Your task to perform on an android device: uninstall "Facebook Lite" Image 0: 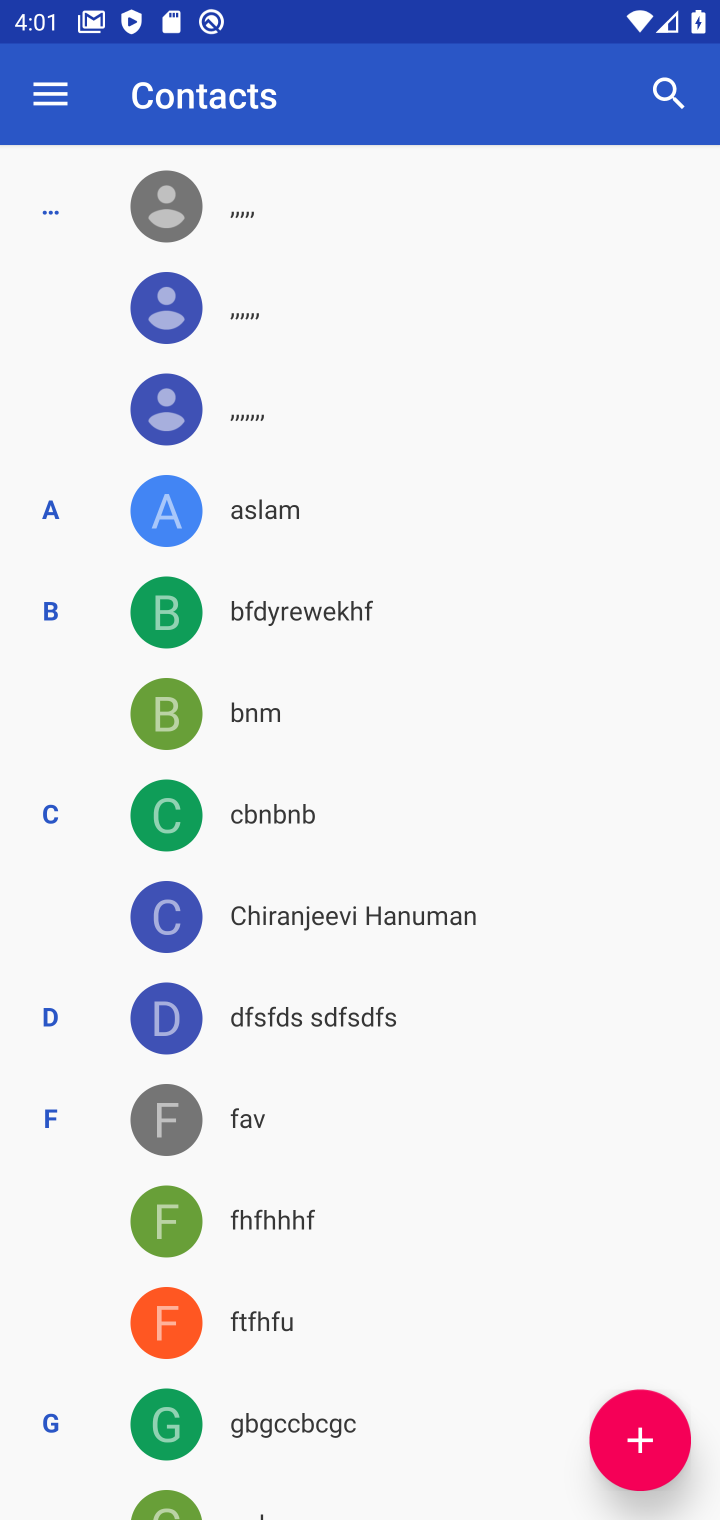
Step 0: press home button
Your task to perform on an android device: uninstall "Facebook Lite" Image 1: 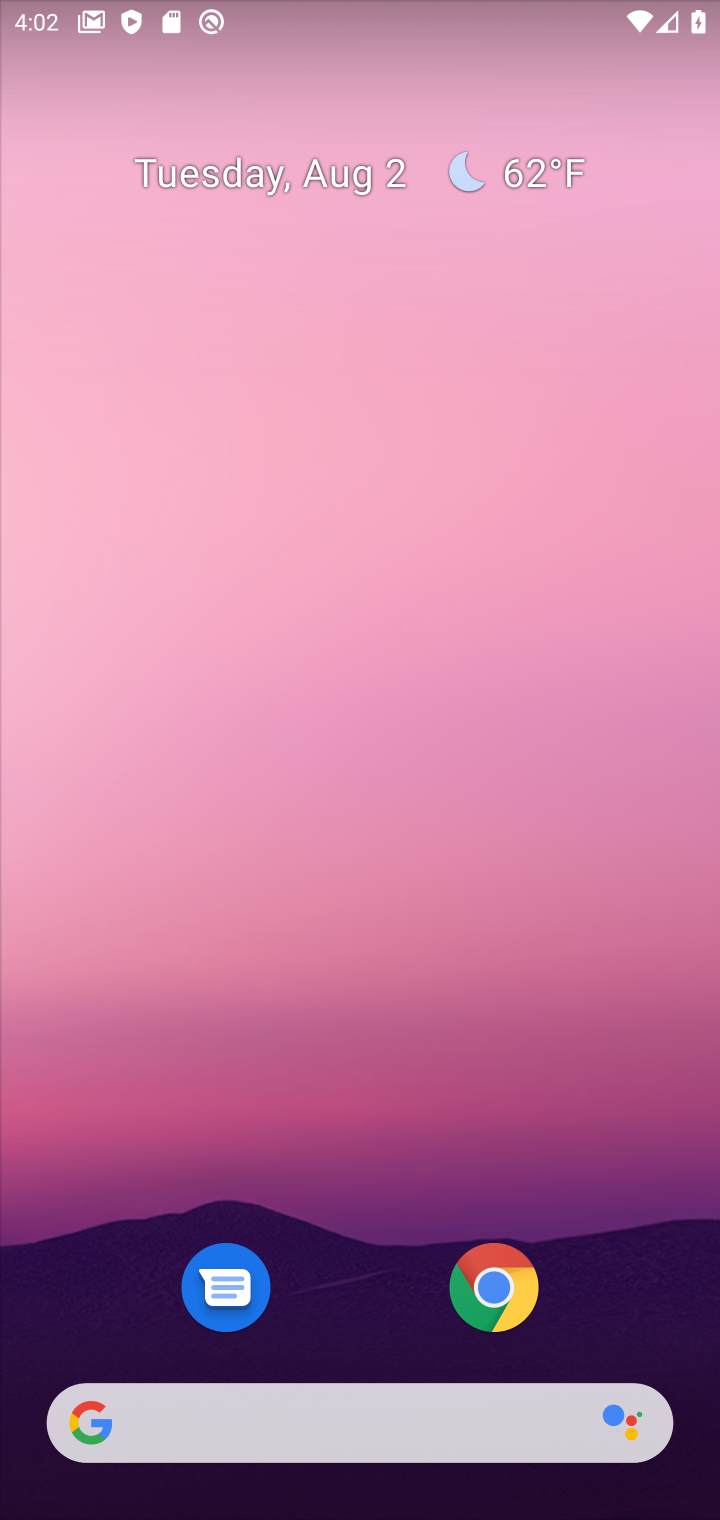
Step 1: drag from (417, 845) to (477, 78)
Your task to perform on an android device: uninstall "Facebook Lite" Image 2: 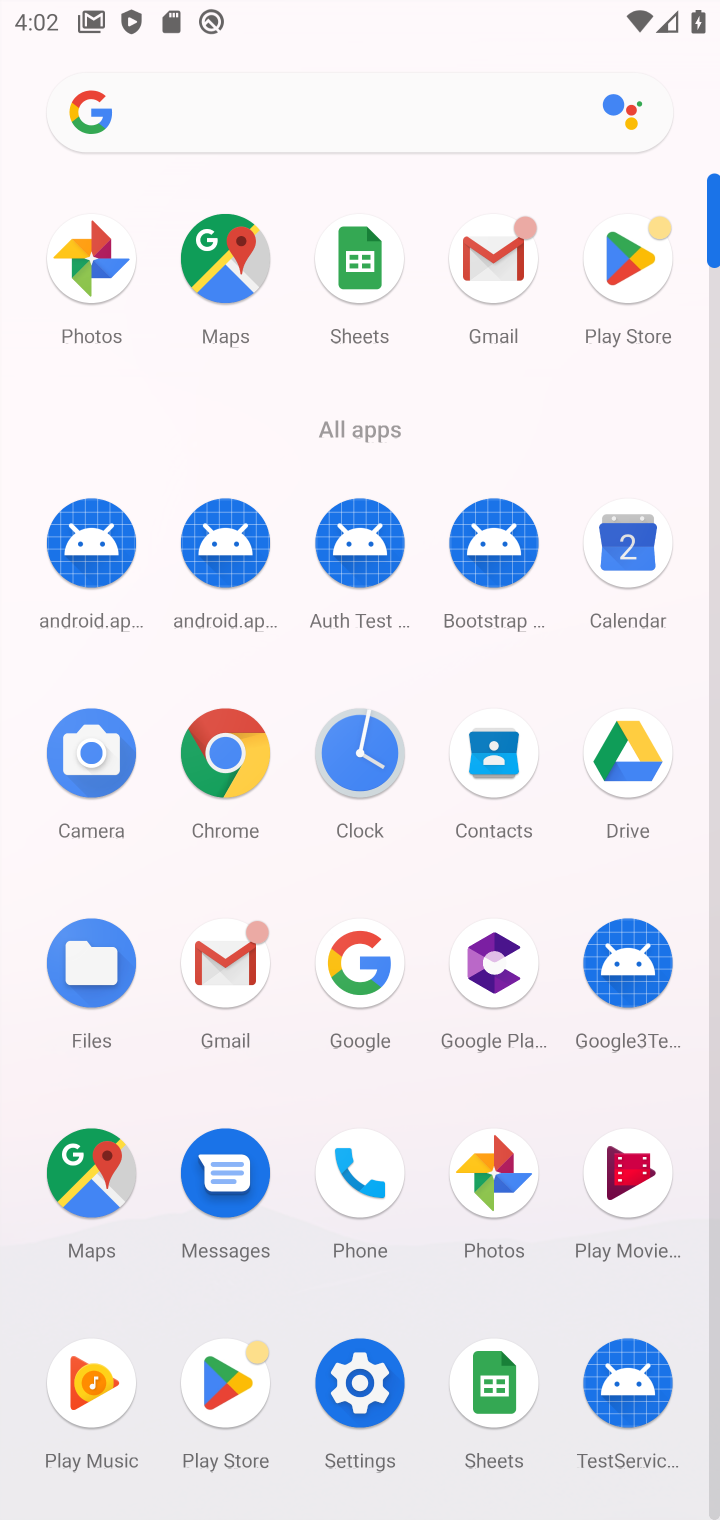
Step 2: click (662, 279)
Your task to perform on an android device: uninstall "Facebook Lite" Image 3: 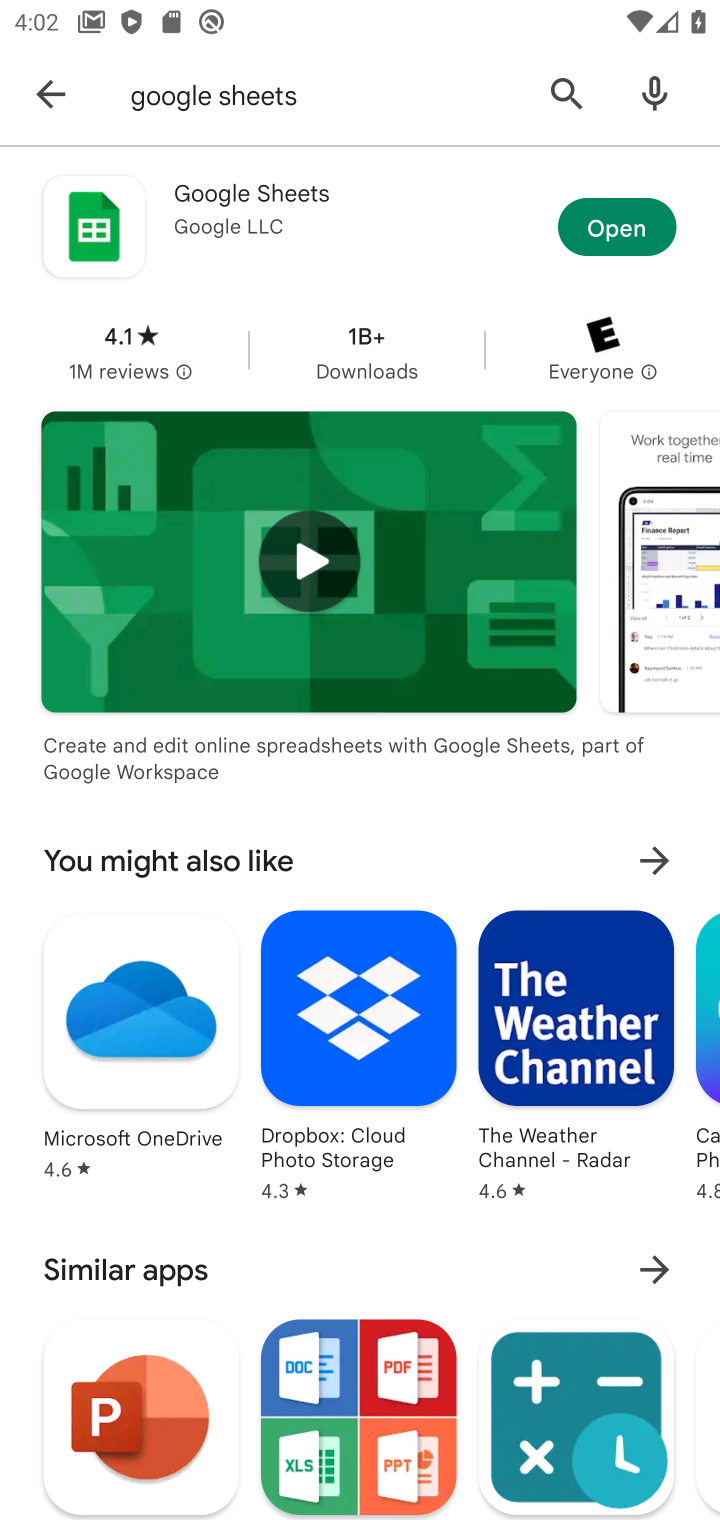
Step 3: click (580, 96)
Your task to perform on an android device: uninstall "Facebook Lite" Image 4: 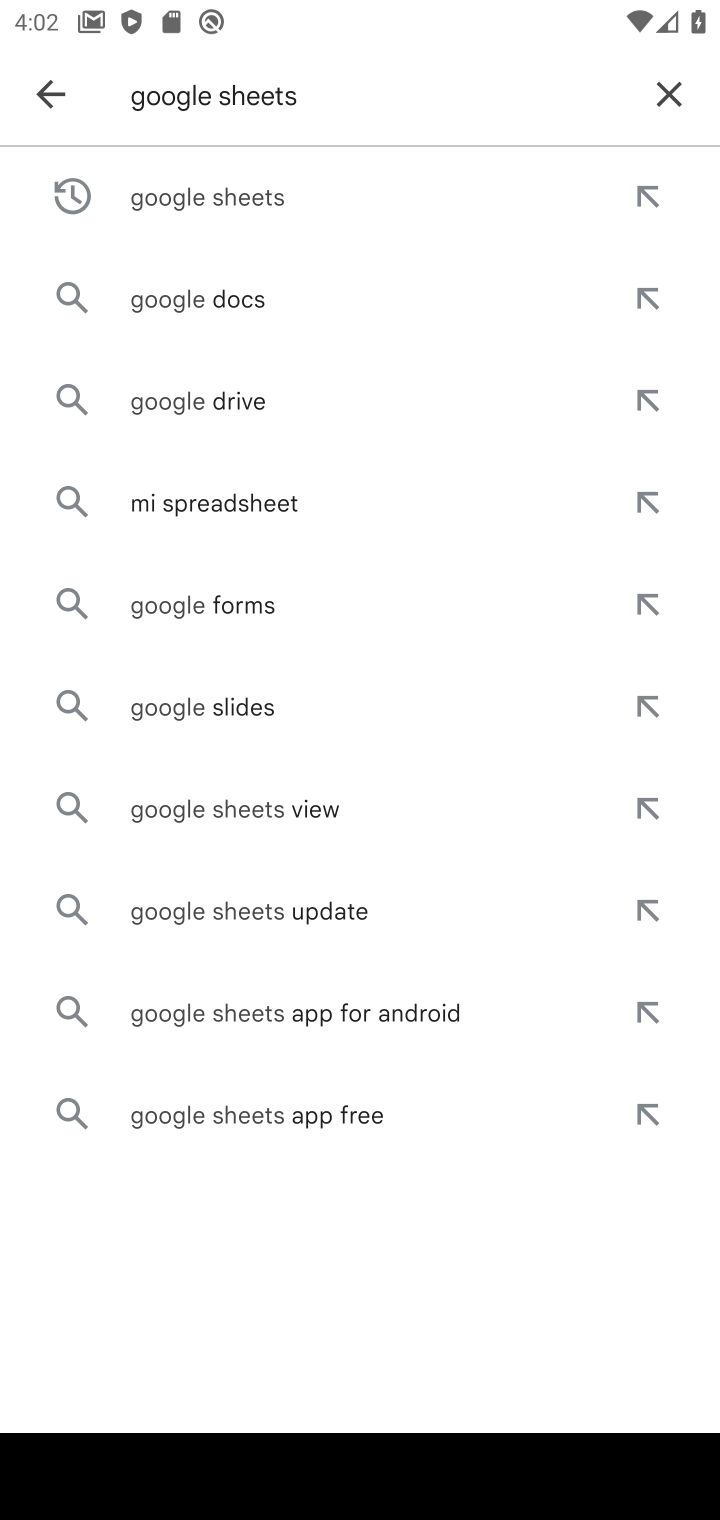
Step 4: click (660, 96)
Your task to perform on an android device: uninstall "Facebook Lite" Image 5: 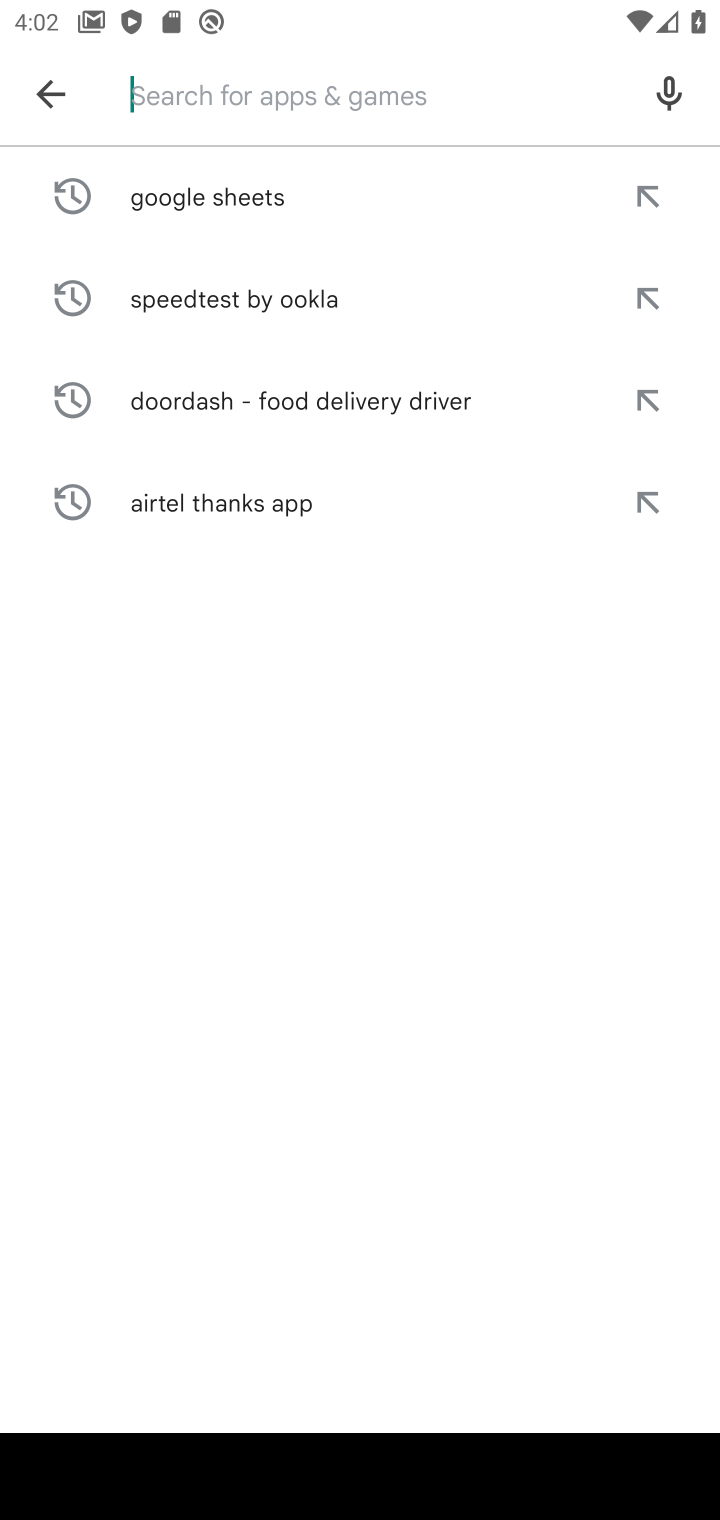
Step 5: type "Facebook Lite"
Your task to perform on an android device: uninstall "Facebook Lite" Image 6: 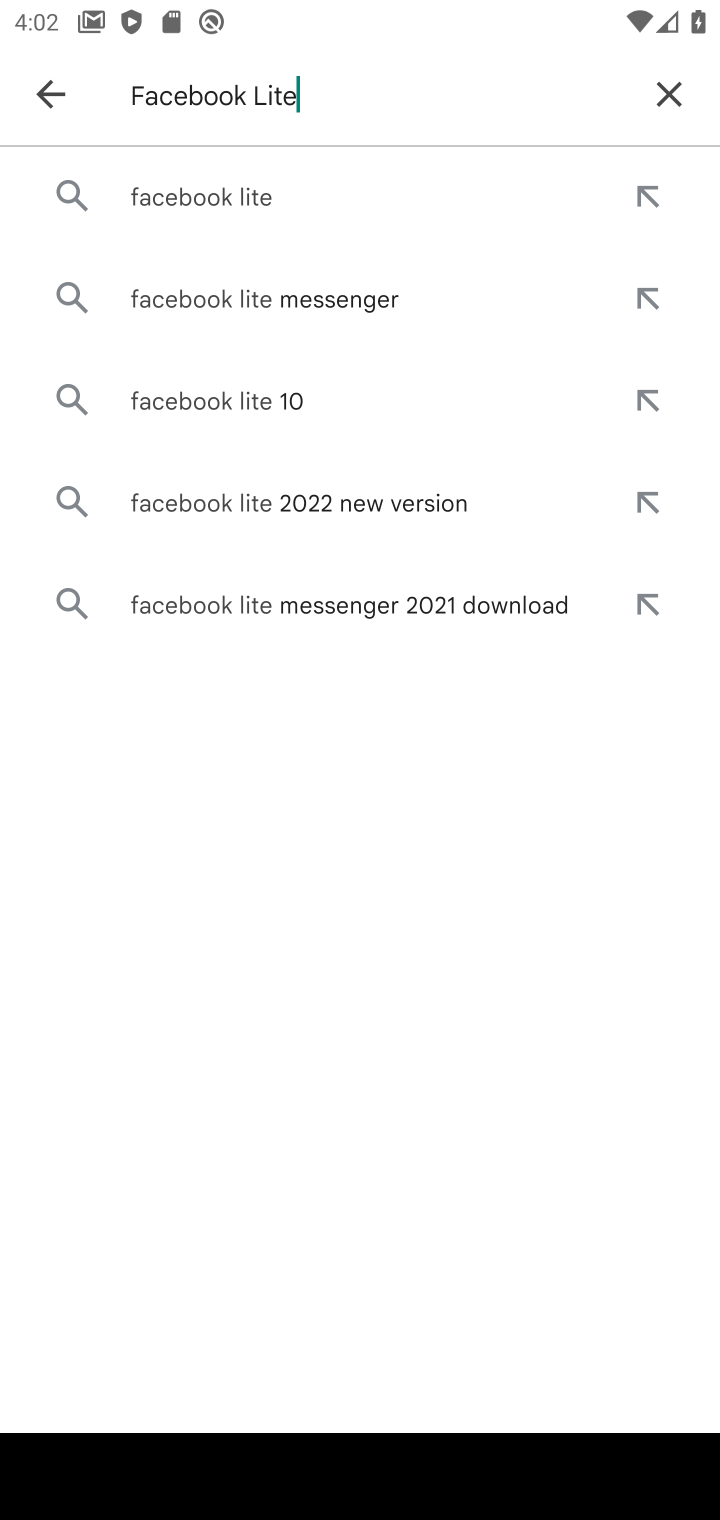
Step 6: click (278, 208)
Your task to perform on an android device: uninstall "Facebook Lite" Image 7: 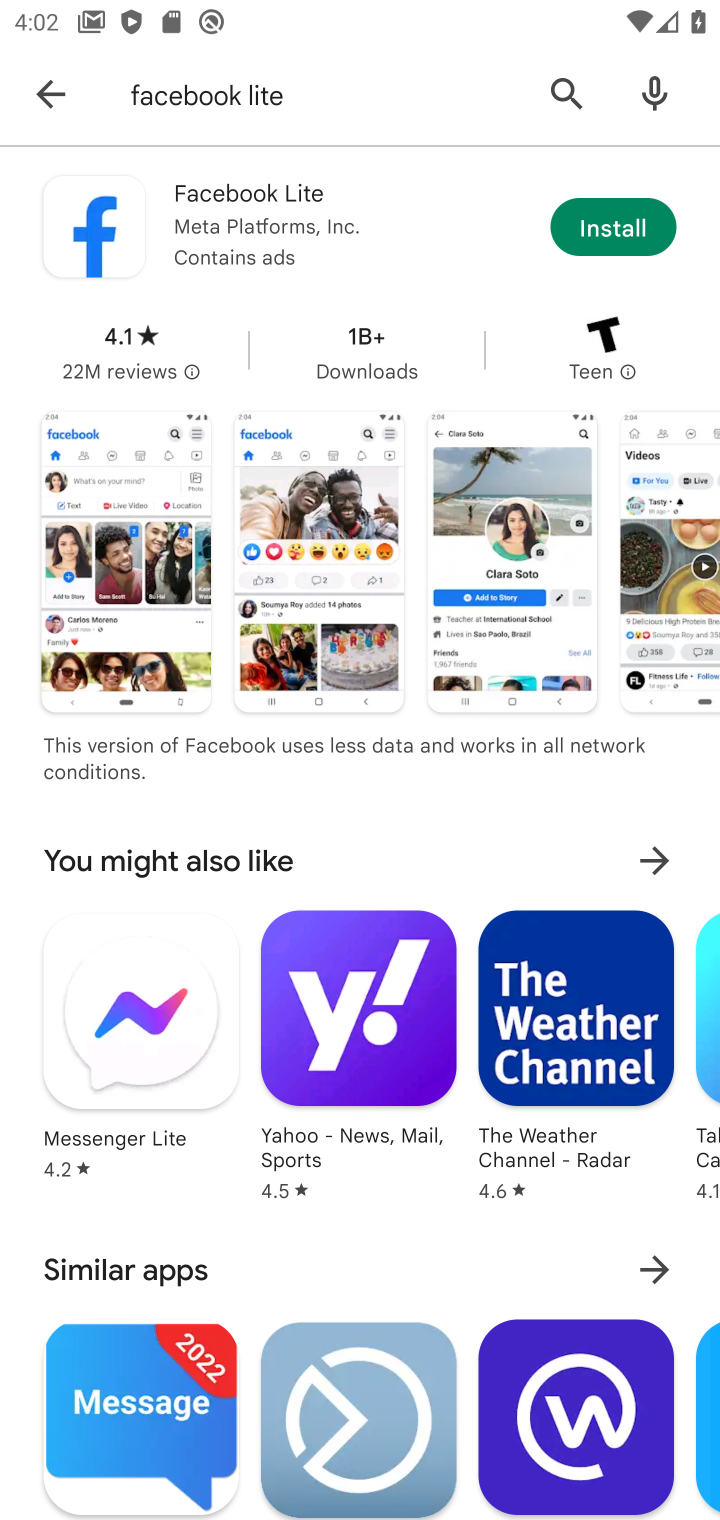
Step 7: task complete